Your task to perform on an android device: Go to notification settings Image 0: 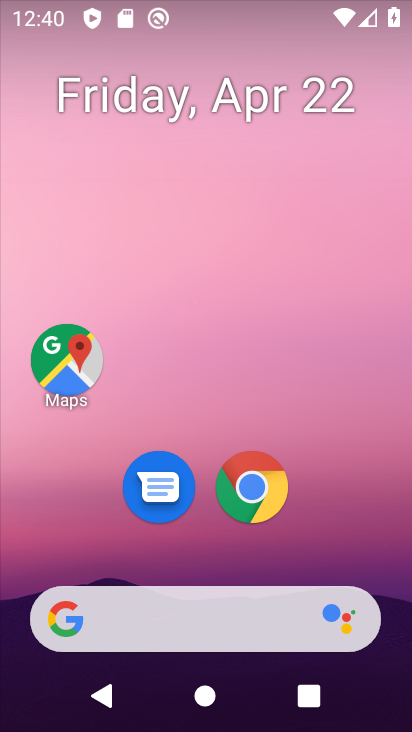
Step 0: drag from (198, 324) to (277, 102)
Your task to perform on an android device: Go to notification settings Image 1: 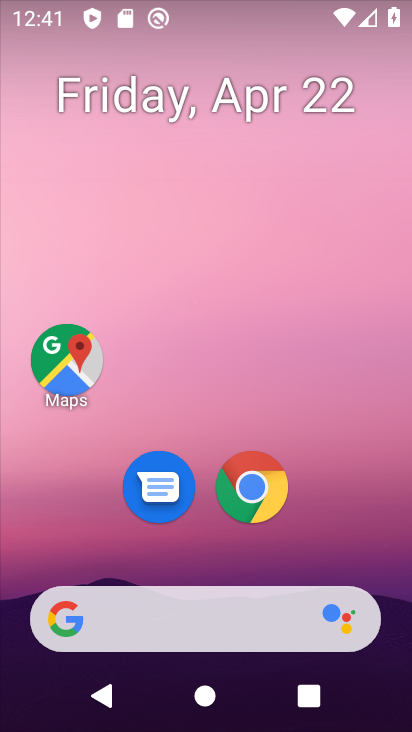
Step 1: drag from (190, 555) to (218, 55)
Your task to perform on an android device: Go to notification settings Image 2: 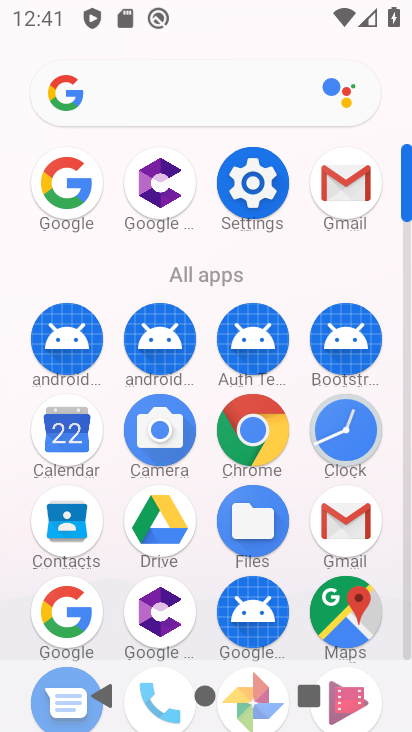
Step 2: click (256, 184)
Your task to perform on an android device: Go to notification settings Image 3: 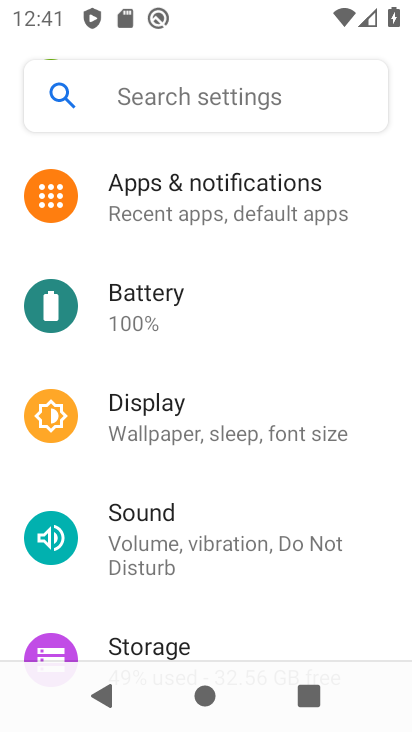
Step 3: click (223, 203)
Your task to perform on an android device: Go to notification settings Image 4: 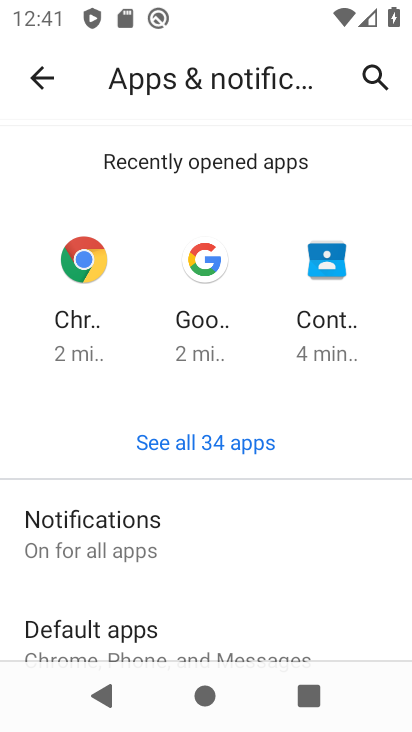
Step 4: click (164, 546)
Your task to perform on an android device: Go to notification settings Image 5: 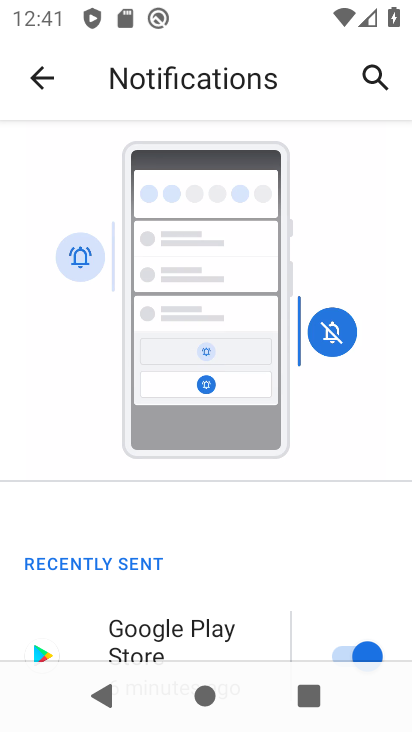
Step 5: task complete